Your task to perform on an android device: turn off translation in the chrome app Image 0: 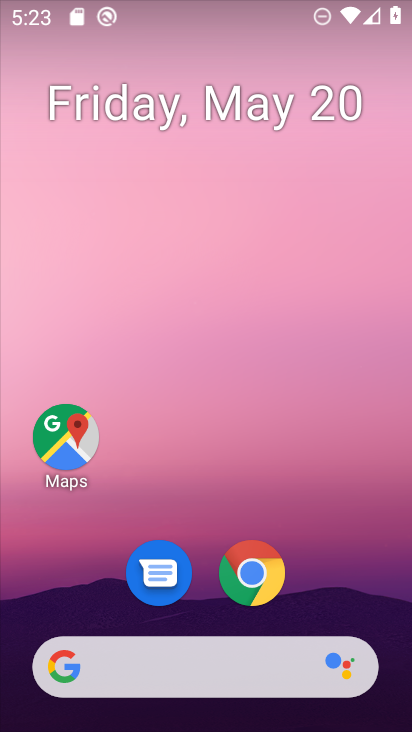
Step 0: drag from (348, 520) to (212, 65)
Your task to perform on an android device: turn off translation in the chrome app Image 1: 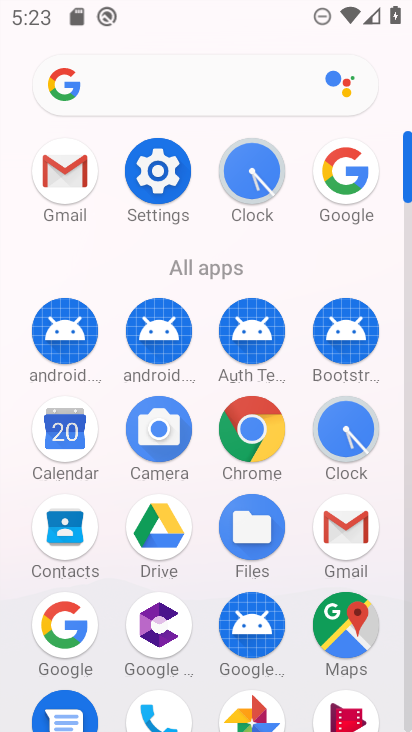
Step 1: click (245, 436)
Your task to perform on an android device: turn off translation in the chrome app Image 2: 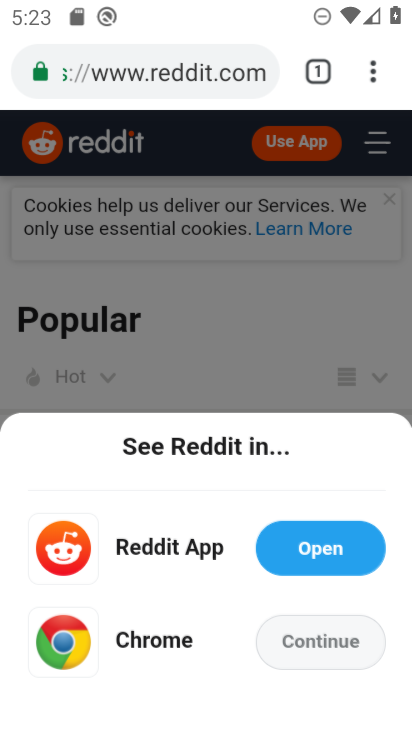
Step 2: click (376, 79)
Your task to perform on an android device: turn off translation in the chrome app Image 3: 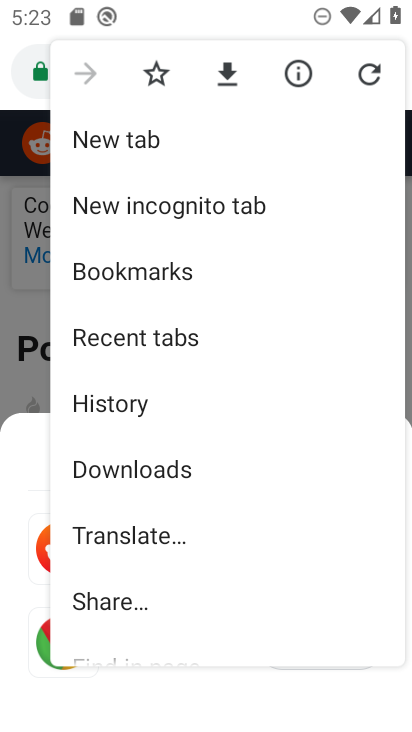
Step 3: drag from (224, 496) to (191, 98)
Your task to perform on an android device: turn off translation in the chrome app Image 4: 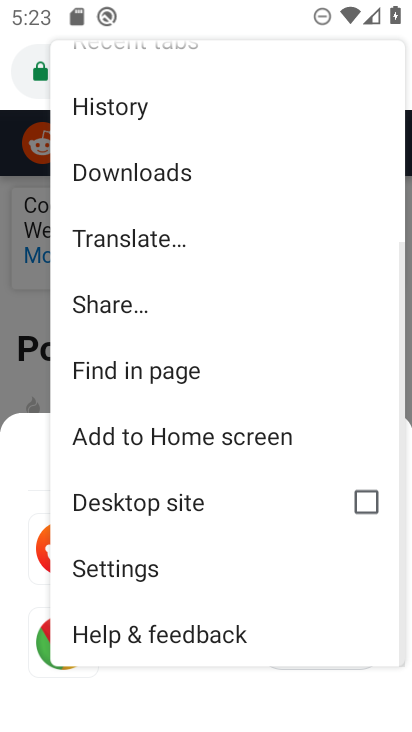
Step 4: click (170, 567)
Your task to perform on an android device: turn off translation in the chrome app Image 5: 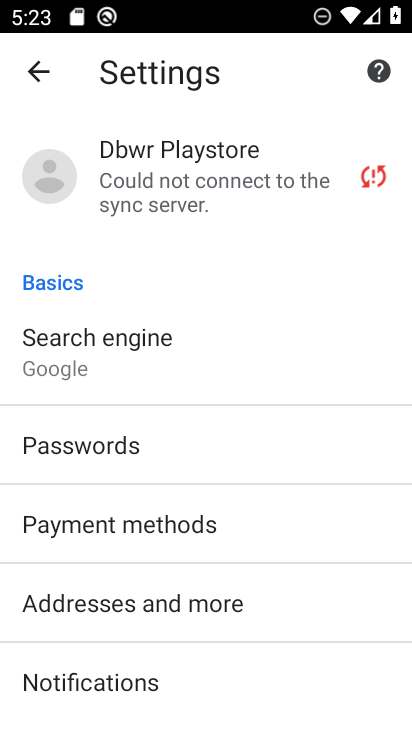
Step 5: drag from (162, 624) to (184, 156)
Your task to perform on an android device: turn off translation in the chrome app Image 6: 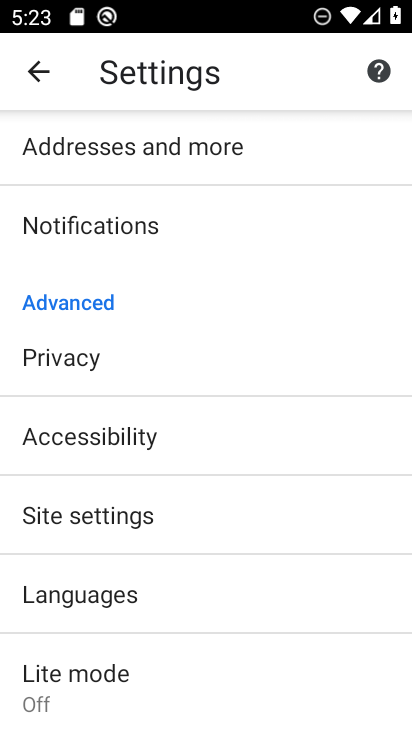
Step 6: click (138, 586)
Your task to perform on an android device: turn off translation in the chrome app Image 7: 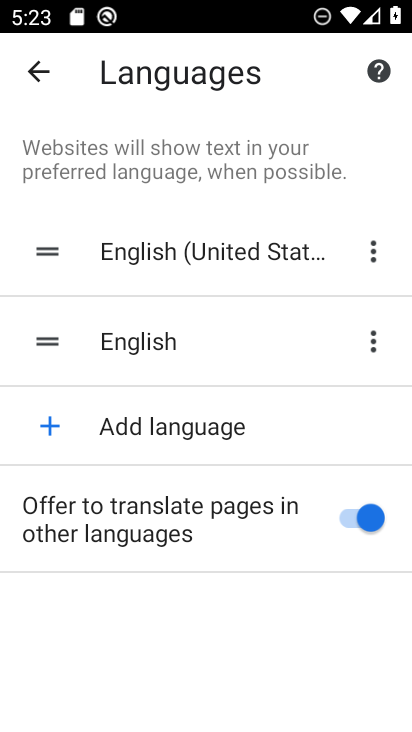
Step 7: click (348, 524)
Your task to perform on an android device: turn off translation in the chrome app Image 8: 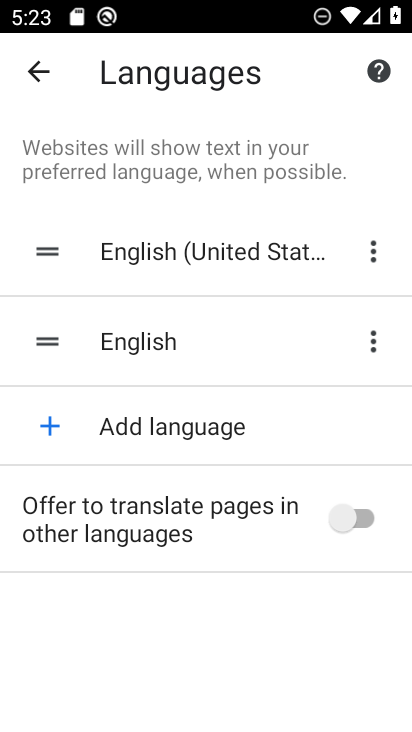
Step 8: task complete